Your task to perform on an android device: Clear the cart on amazon.com. Image 0: 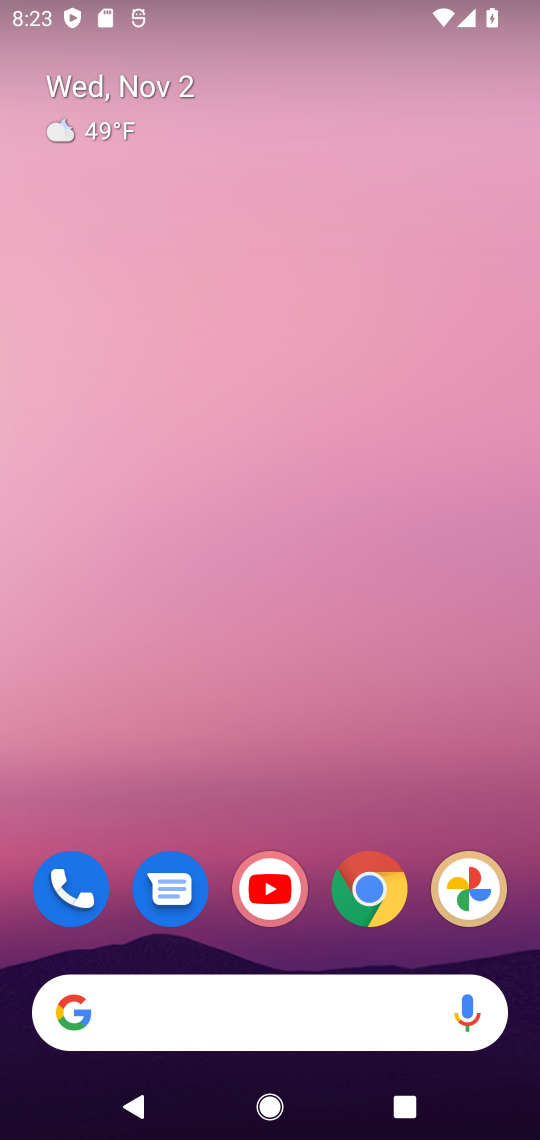
Step 0: press home button
Your task to perform on an android device: Clear the cart on amazon.com. Image 1: 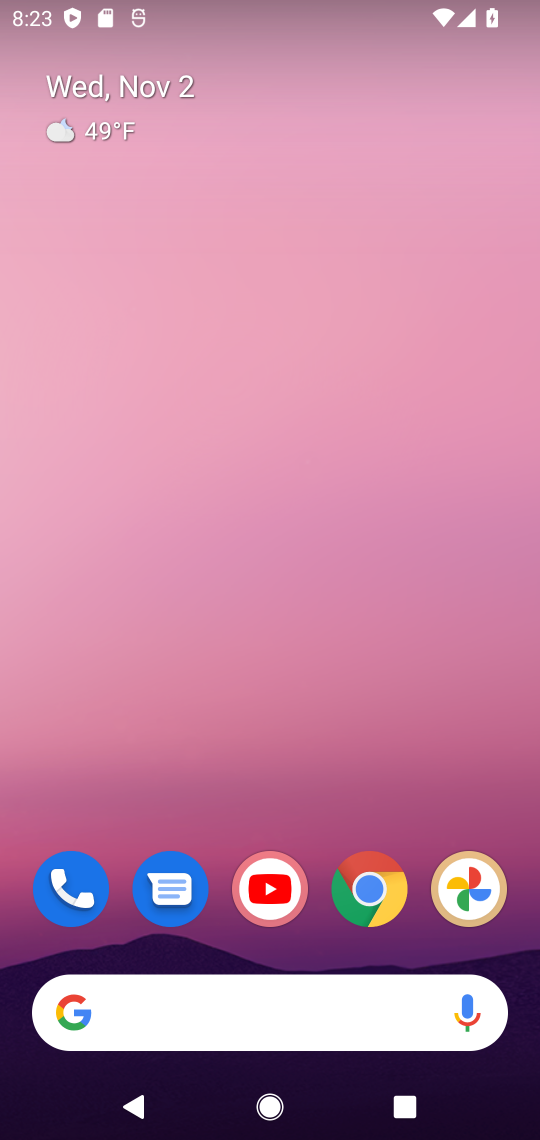
Step 1: drag from (292, 789) to (319, 129)
Your task to perform on an android device: Clear the cart on amazon.com. Image 2: 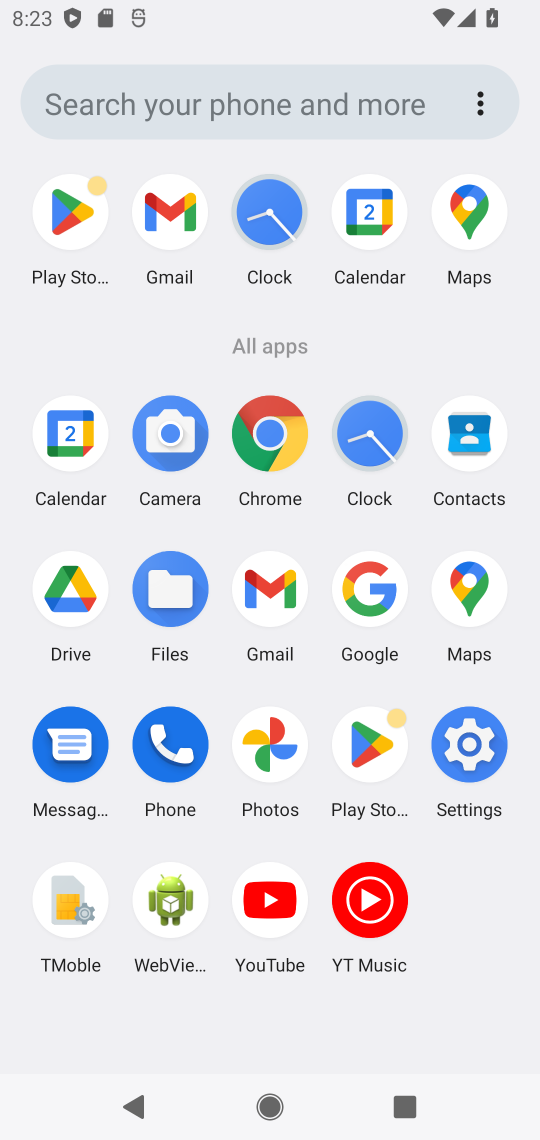
Step 2: click (257, 414)
Your task to perform on an android device: Clear the cart on amazon.com. Image 3: 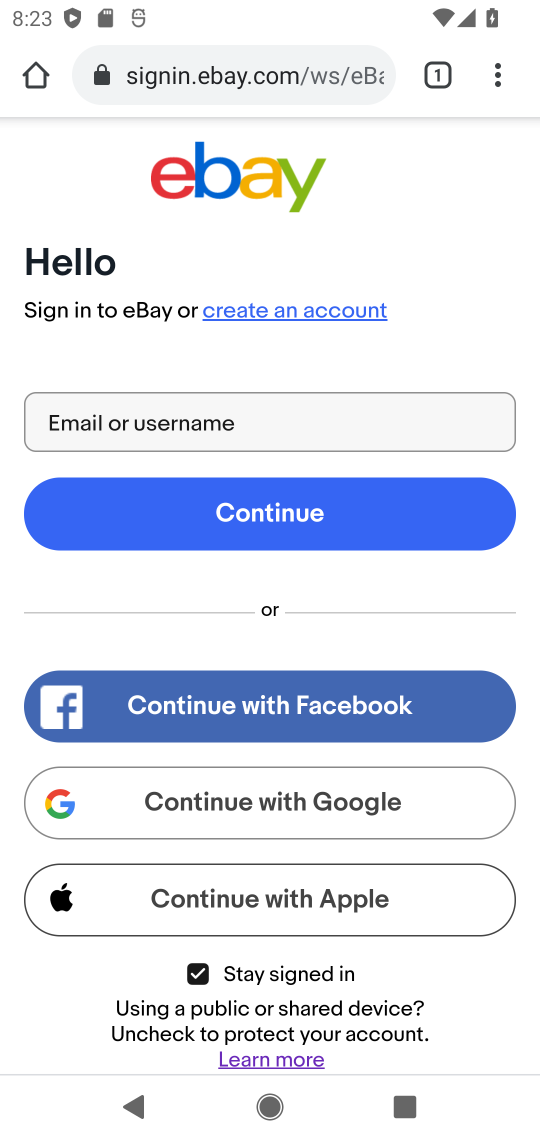
Step 3: click (269, 79)
Your task to perform on an android device: Clear the cart on amazon.com. Image 4: 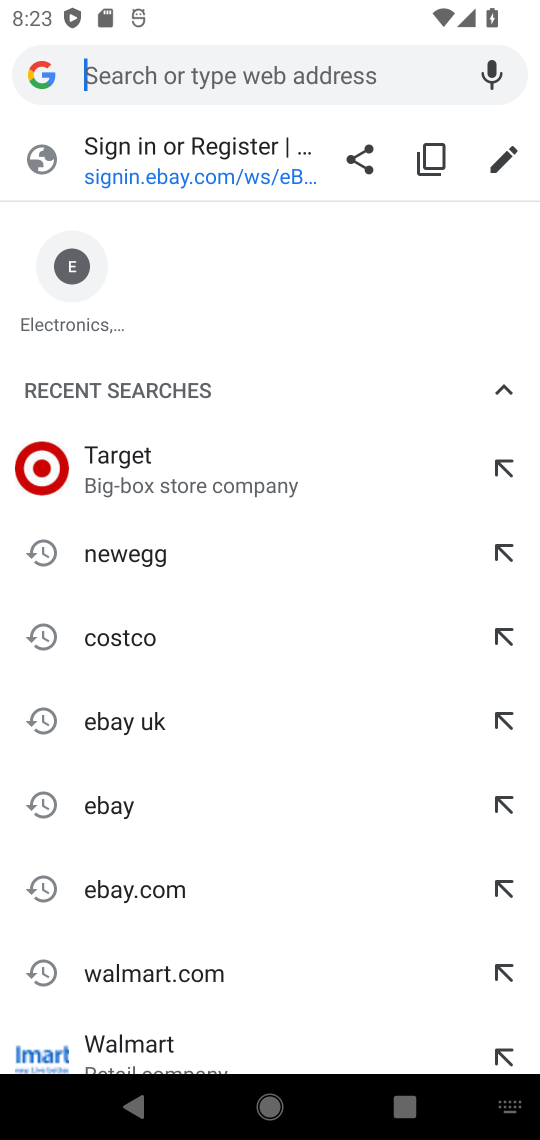
Step 4: type "amazon"
Your task to perform on an android device: Clear the cart on amazon.com. Image 5: 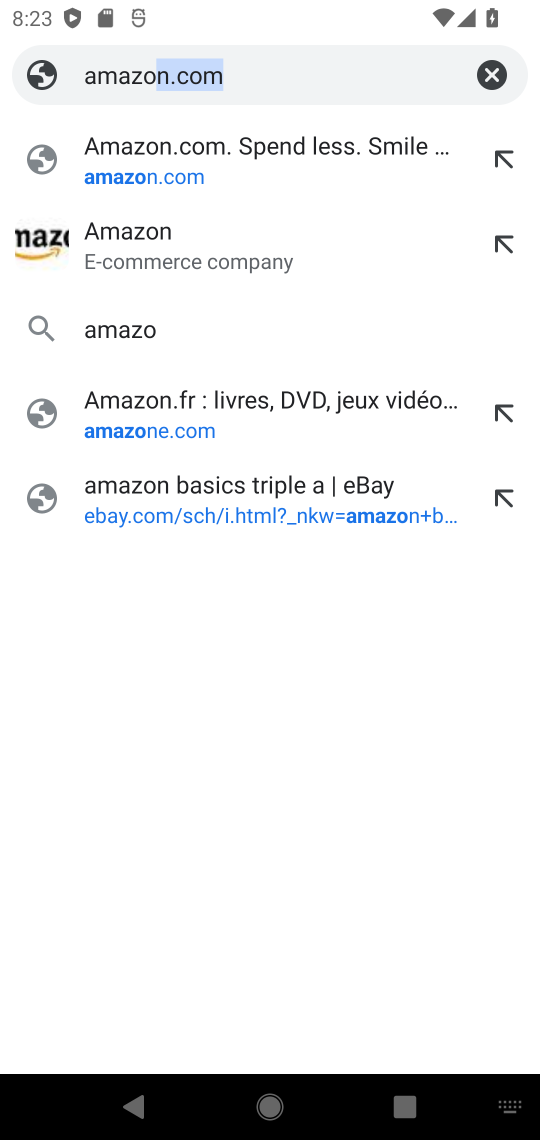
Step 5: type ""
Your task to perform on an android device: Clear the cart on amazon.com. Image 6: 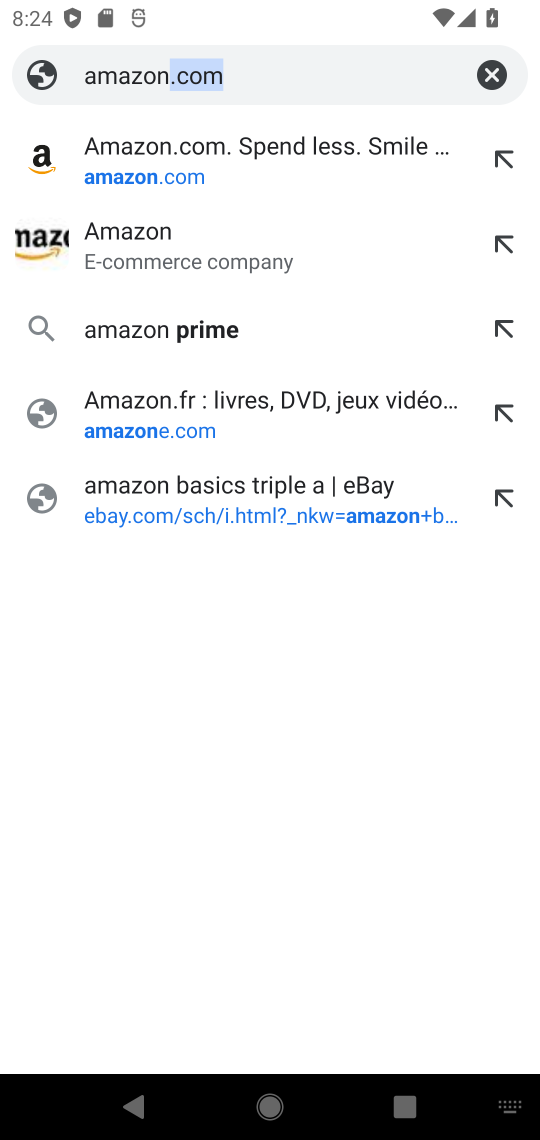
Step 6: click (217, 165)
Your task to perform on an android device: Clear the cart on amazon.com. Image 7: 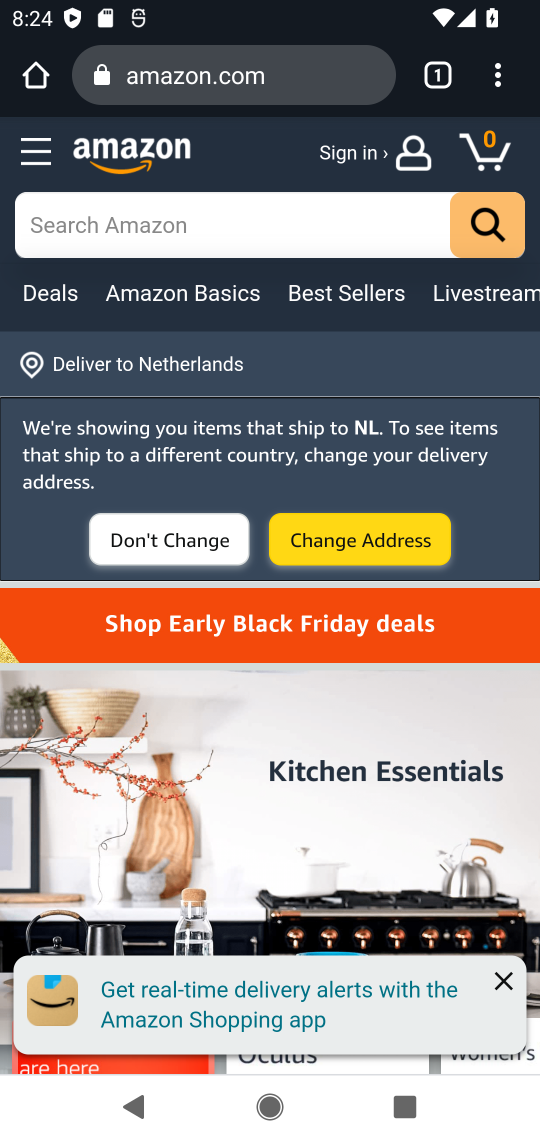
Step 7: click (485, 144)
Your task to perform on an android device: Clear the cart on amazon.com. Image 8: 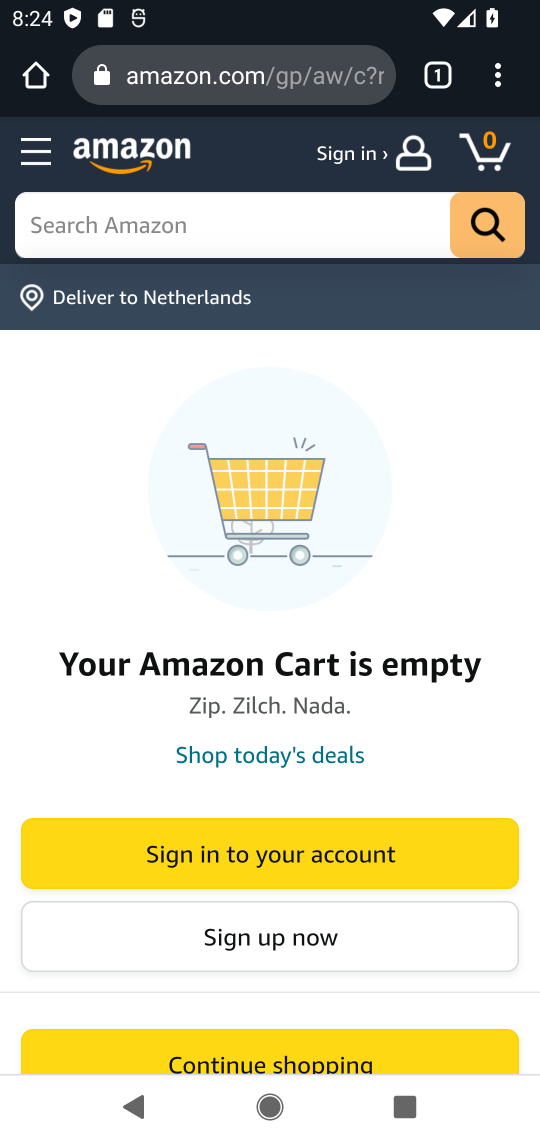
Step 8: task complete